Your task to perform on an android device: show emergency info Image 0: 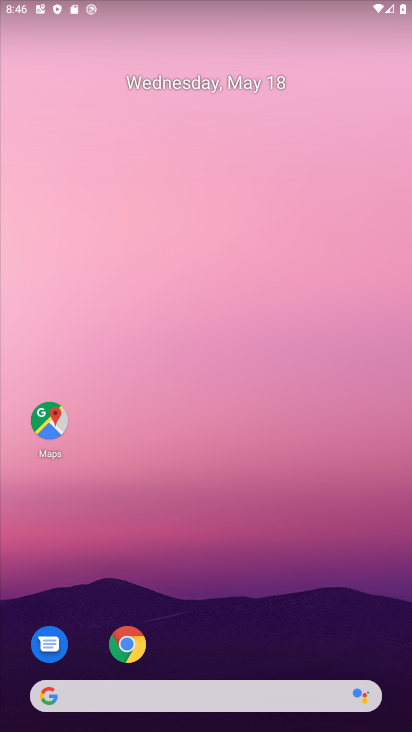
Step 0: drag from (191, 441) to (259, 15)
Your task to perform on an android device: show emergency info Image 1: 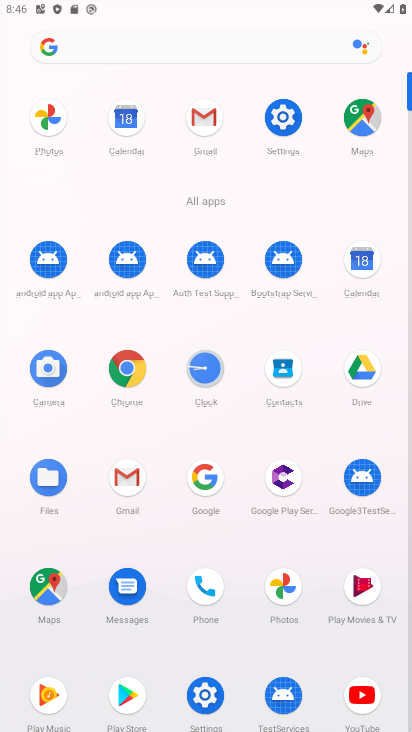
Step 1: click (281, 118)
Your task to perform on an android device: show emergency info Image 2: 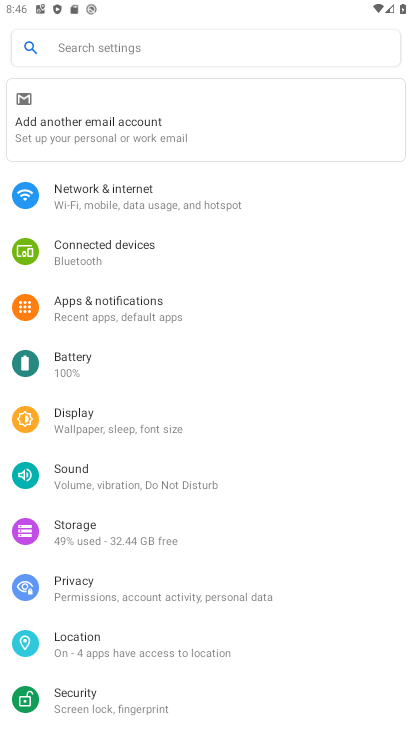
Step 2: drag from (135, 662) to (197, 143)
Your task to perform on an android device: show emergency info Image 3: 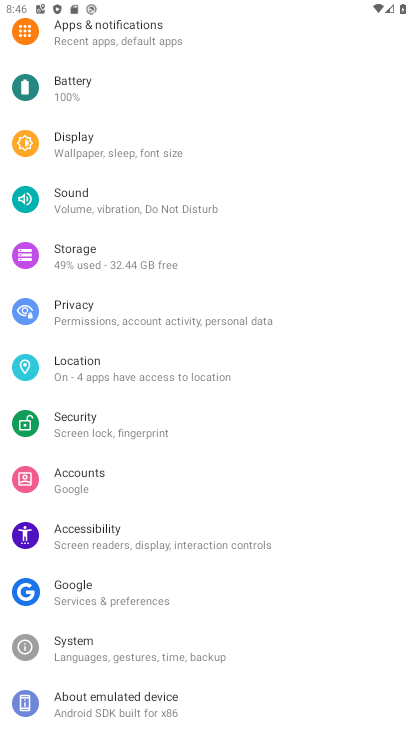
Step 3: click (131, 693)
Your task to perform on an android device: show emergency info Image 4: 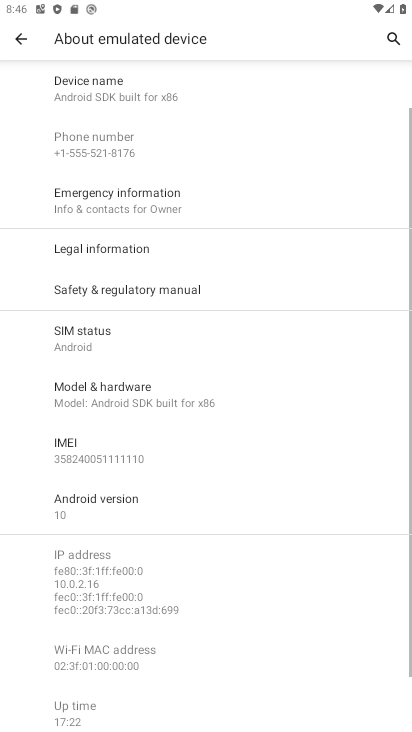
Step 4: click (172, 196)
Your task to perform on an android device: show emergency info Image 5: 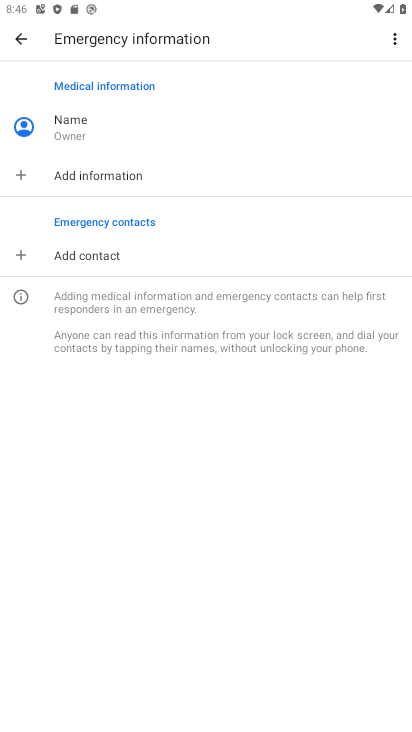
Step 5: task complete